Your task to perform on an android device: turn on bluetooth scan Image 0: 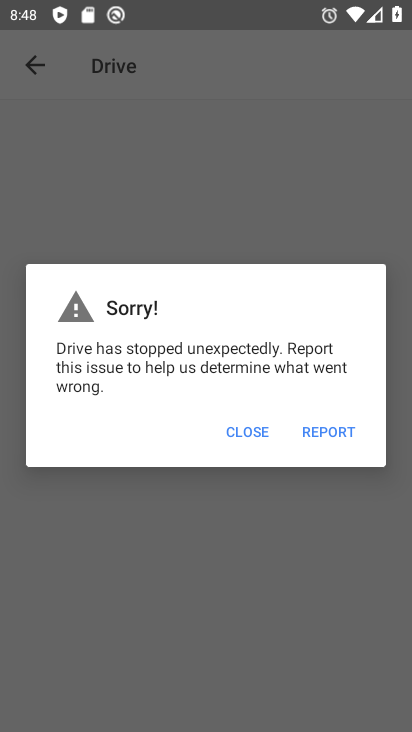
Step 0: press home button
Your task to perform on an android device: turn on bluetooth scan Image 1: 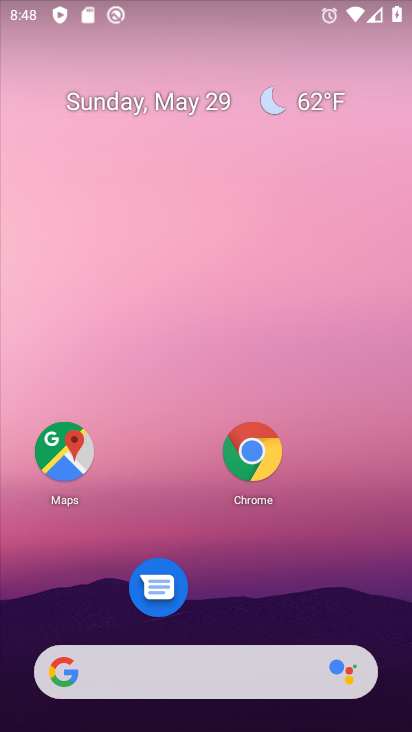
Step 1: drag from (225, 617) to (202, 23)
Your task to perform on an android device: turn on bluetooth scan Image 2: 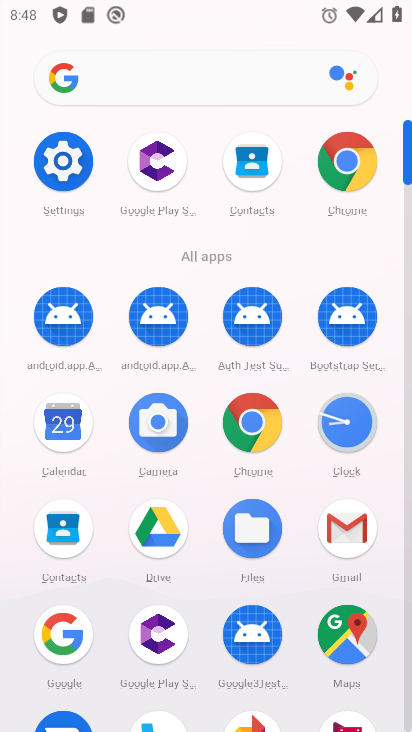
Step 2: click (78, 157)
Your task to perform on an android device: turn on bluetooth scan Image 3: 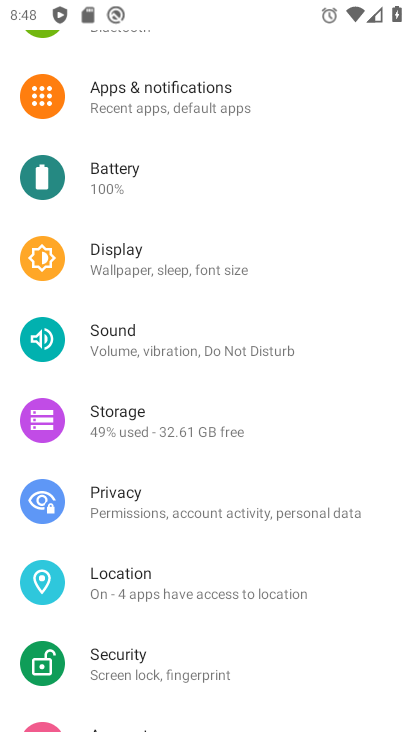
Step 3: click (149, 569)
Your task to perform on an android device: turn on bluetooth scan Image 4: 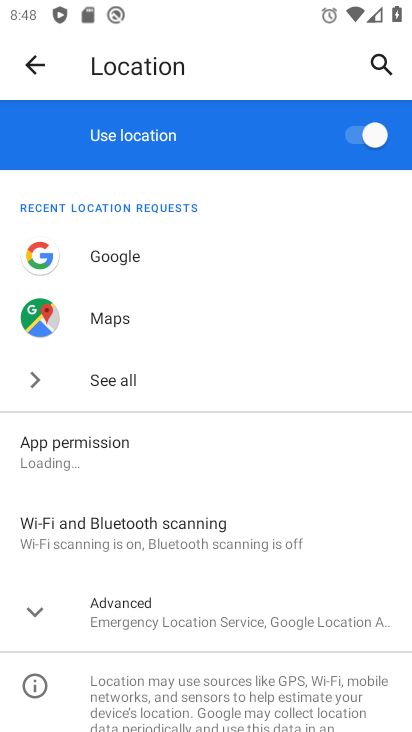
Step 4: click (168, 628)
Your task to perform on an android device: turn on bluetooth scan Image 5: 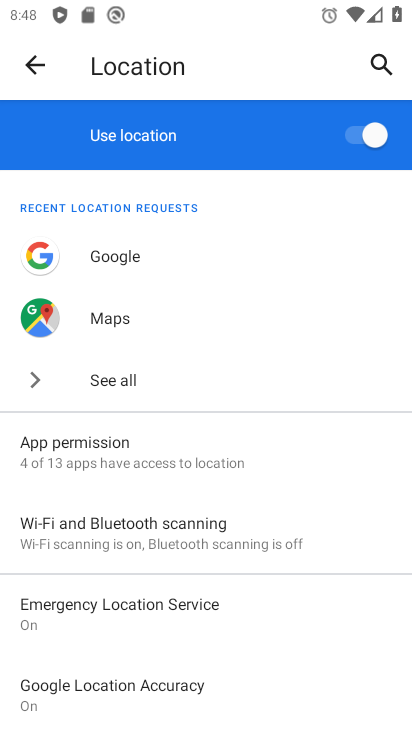
Step 5: drag from (168, 628) to (232, 247)
Your task to perform on an android device: turn on bluetooth scan Image 6: 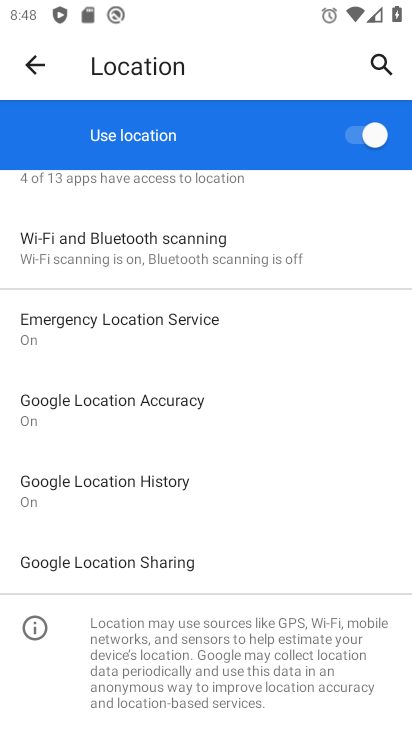
Step 6: click (160, 255)
Your task to perform on an android device: turn on bluetooth scan Image 7: 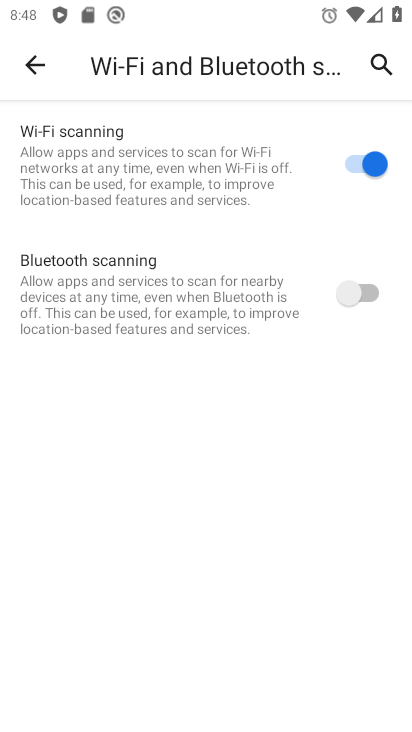
Step 7: click (379, 293)
Your task to perform on an android device: turn on bluetooth scan Image 8: 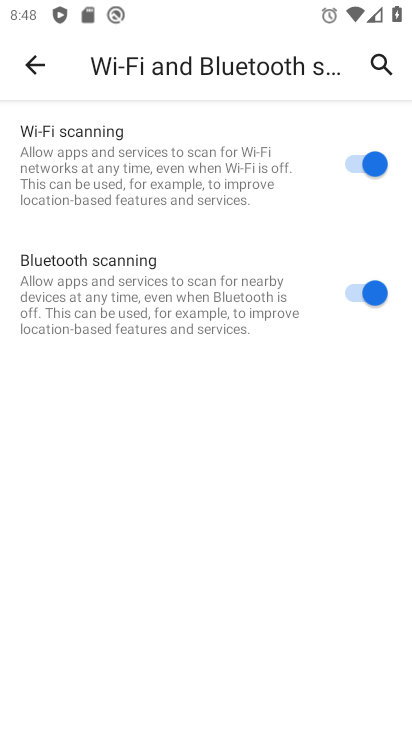
Step 8: task complete